Your task to perform on an android device: Go to eBay Image 0: 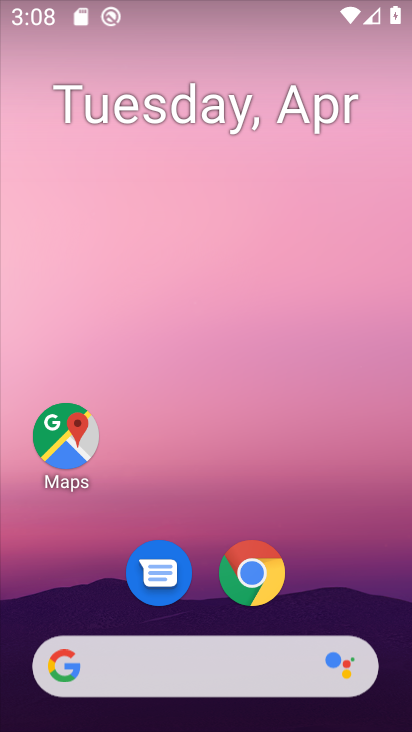
Step 0: click (200, 654)
Your task to perform on an android device: Go to eBay Image 1: 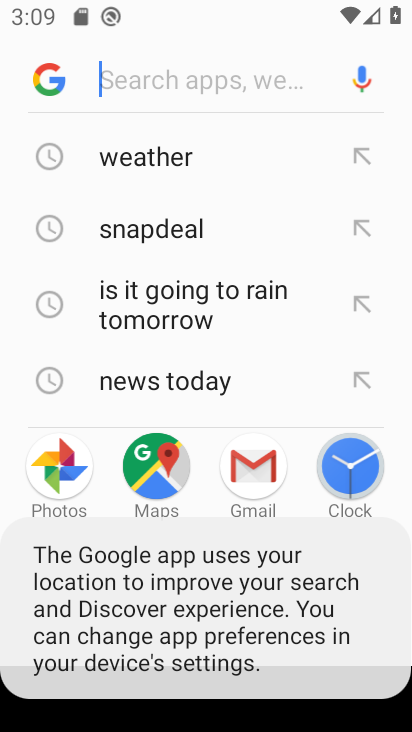
Step 1: click (190, 84)
Your task to perform on an android device: Go to eBay Image 2: 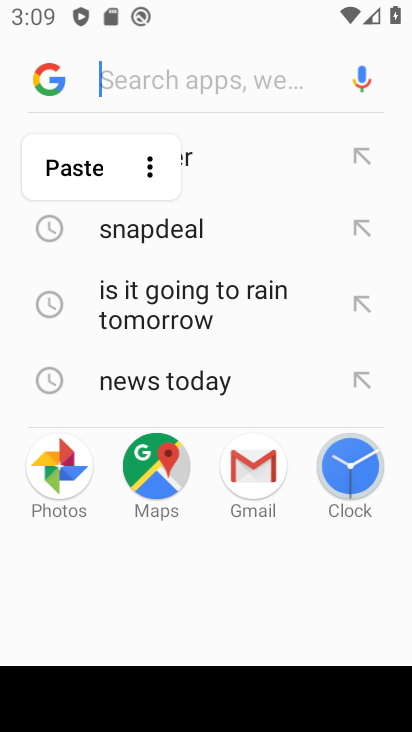
Step 2: type "eBay"
Your task to perform on an android device: Go to eBay Image 3: 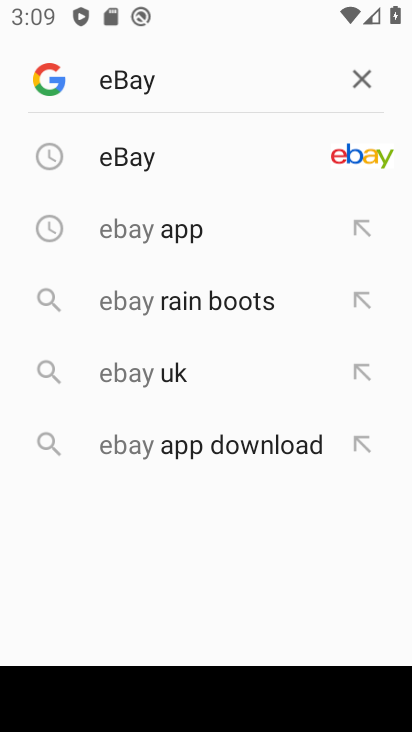
Step 3: click (147, 147)
Your task to perform on an android device: Go to eBay Image 4: 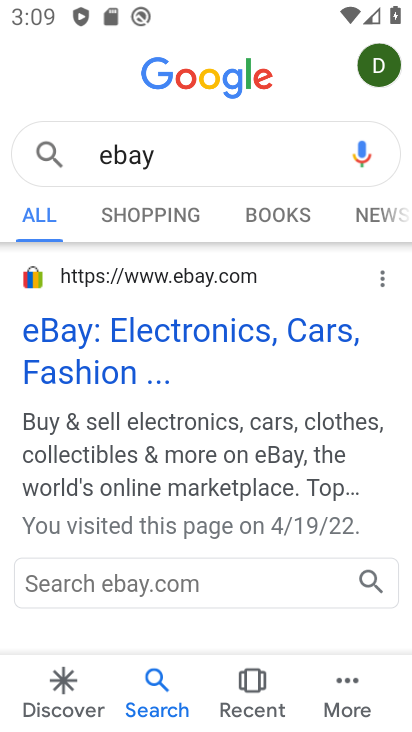
Step 4: click (133, 334)
Your task to perform on an android device: Go to eBay Image 5: 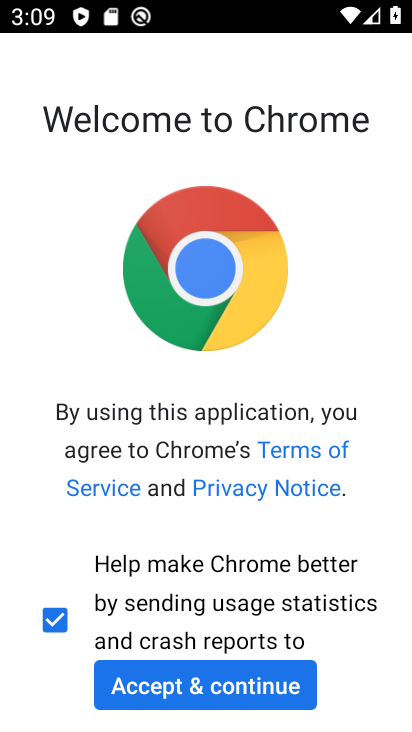
Step 5: click (247, 686)
Your task to perform on an android device: Go to eBay Image 6: 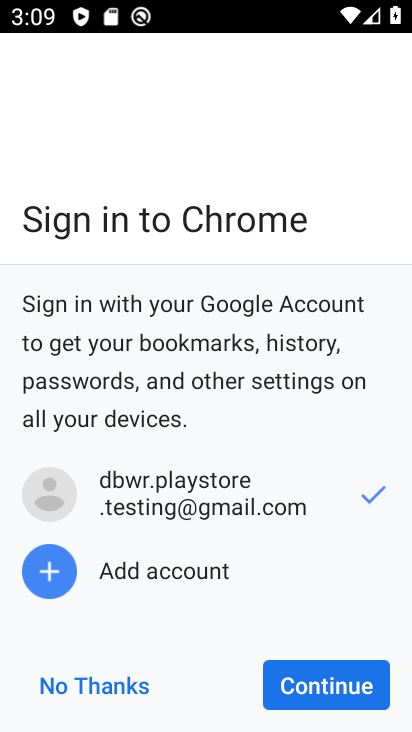
Step 6: click (322, 690)
Your task to perform on an android device: Go to eBay Image 7: 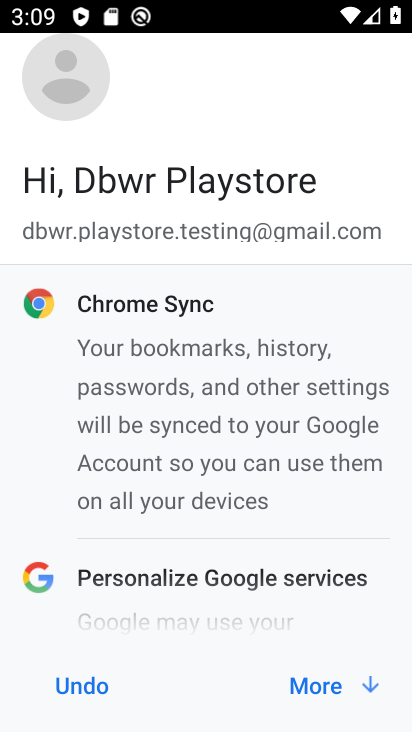
Step 7: click (314, 677)
Your task to perform on an android device: Go to eBay Image 8: 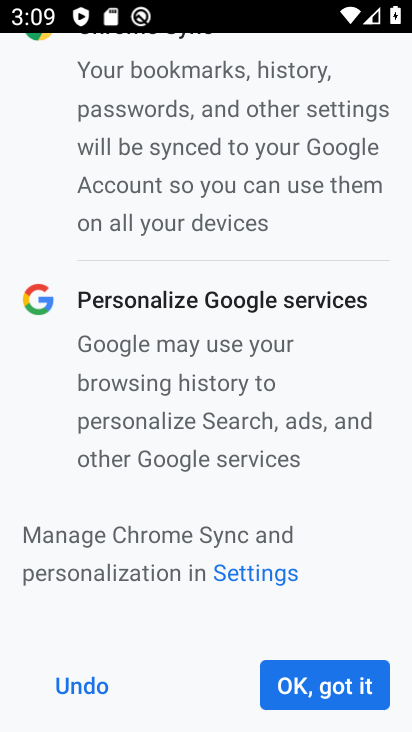
Step 8: click (301, 687)
Your task to perform on an android device: Go to eBay Image 9: 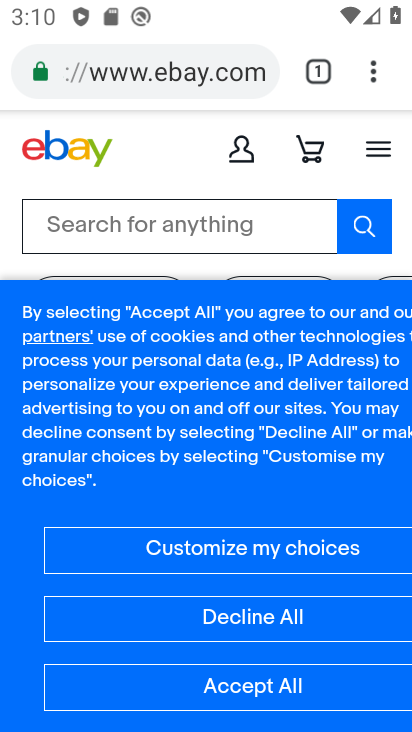
Step 9: task complete